Your task to perform on an android device: Open calendar and show me the second week of next month Image 0: 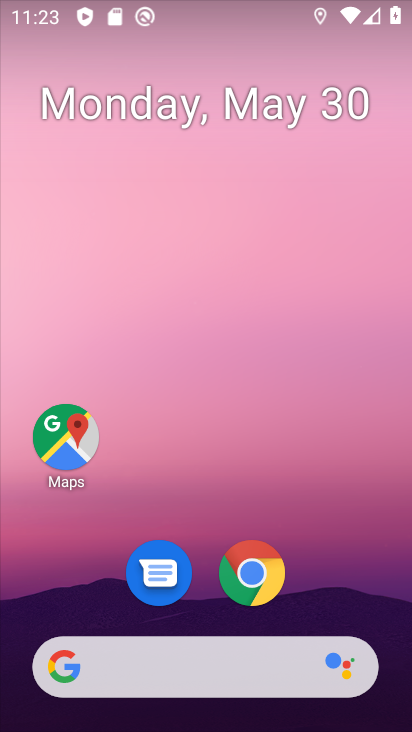
Step 0: drag from (99, 713) to (140, 187)
Your task to perform on an android device: Open calendar and show me the second week of next month Image 1: 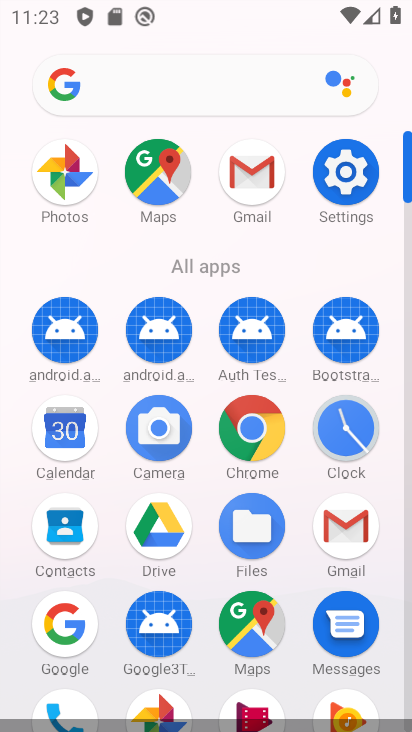
Step 1: click (67, 427)
Your task to perform on an android device: Open calendar and show me the second week of next month Image 2: 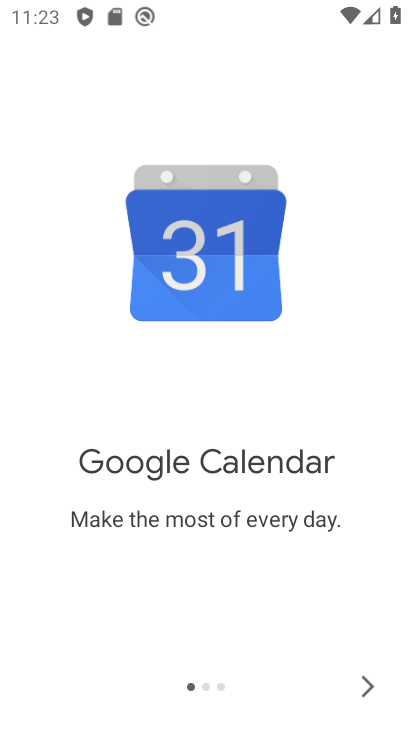
Step 2: click (369, 686)
Your task to perform on an android device: Open calendar and show me the second week of next month Image 3: 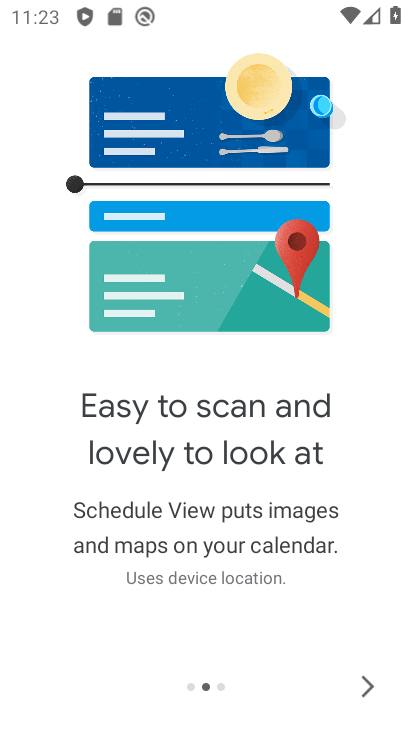
Step 3: click (369, 686)
Your task to perform on an android device: Open calendar and show me the second week of next month Image 4: 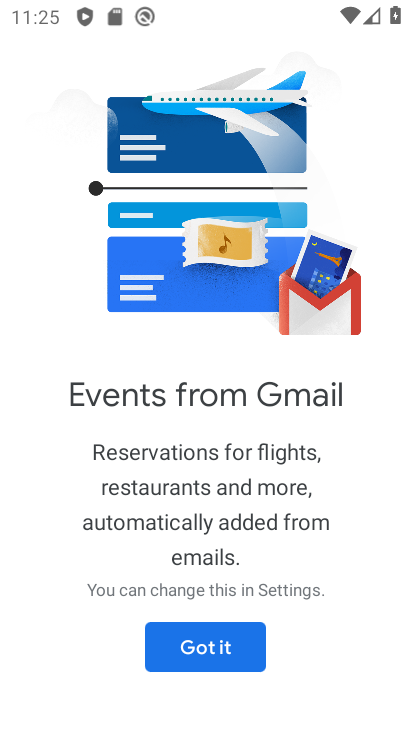
Step 4: click (207, 656)
Your task to perform on an android device: Open calendar and show me the second week of next month Image 5: 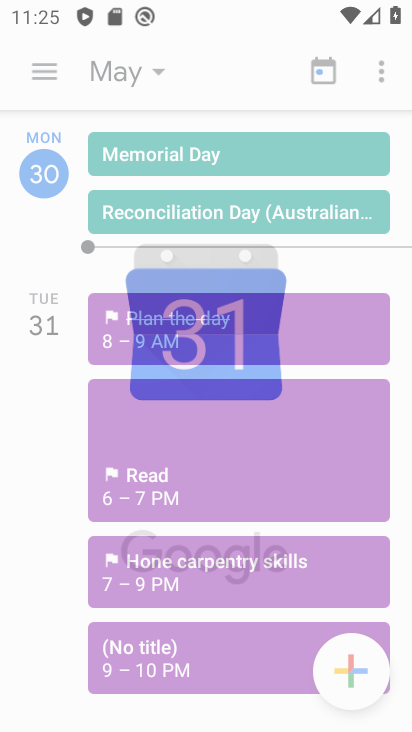
Step 5: press home button
Your task to perform on an android device: Open calendar and show me the second week of next month Image 6: 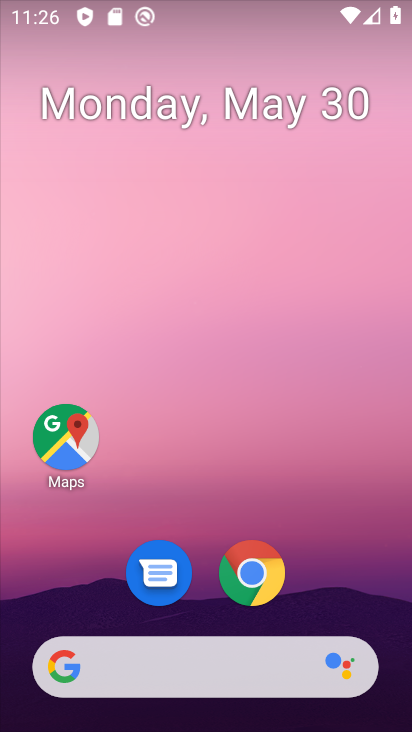
Step 6: drag from (248, 511) to (341, 5)
Your task to perform on an android device: Open calendar and show me the second week of next month Image 7: 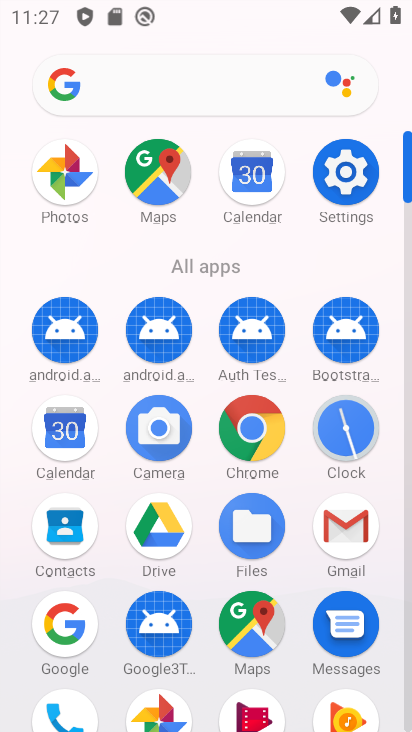
Step 7: click (79, 432)
Your task to perform on an android device: Open calendar and show me the second week of next month Image 8: 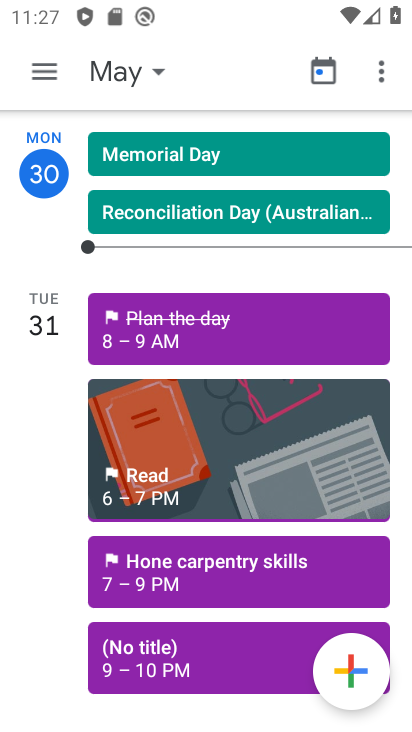
Step 8: click (116, 75)
Your task to perform on an android device: Open calendar and show me the second week of next month Image 9: 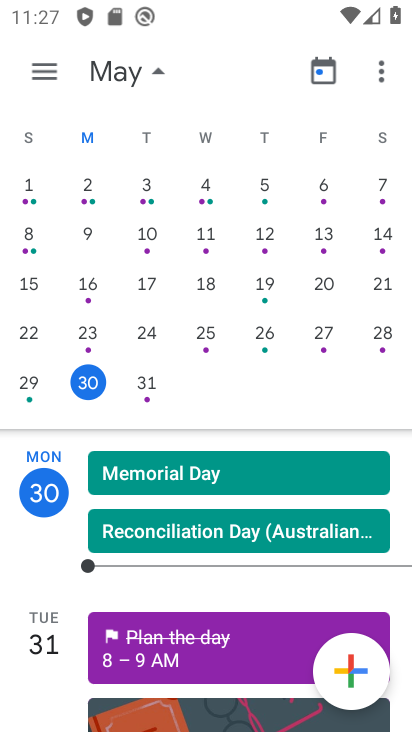
Step 9: drag from (319, 280) to (16, 318)
Your task to perform on an android device: Open calendar and show me the second week of next month Image 10: 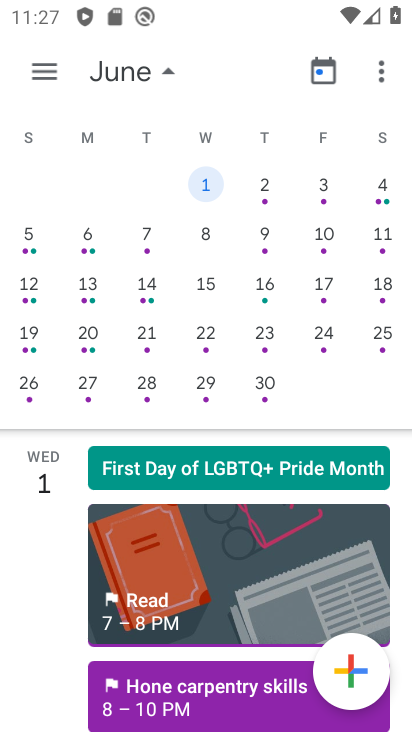
Step 10: click (29, 243)
Your task to perform on an android device: Open calendar and show me the second week of next month Image 11: 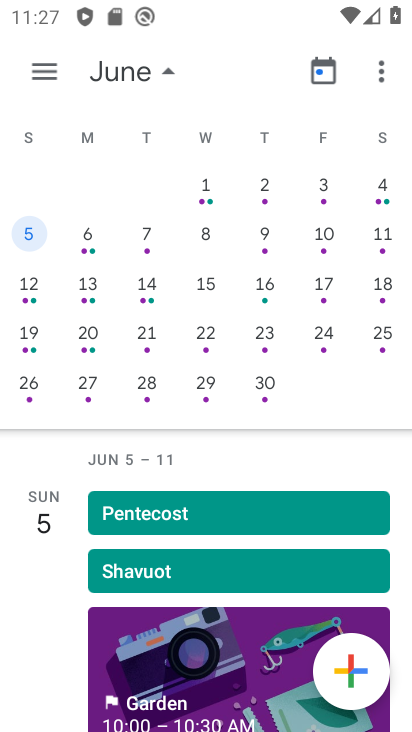
Step 11: task complete